Your task to perform on an android device: open device folders in google photos Image 0: 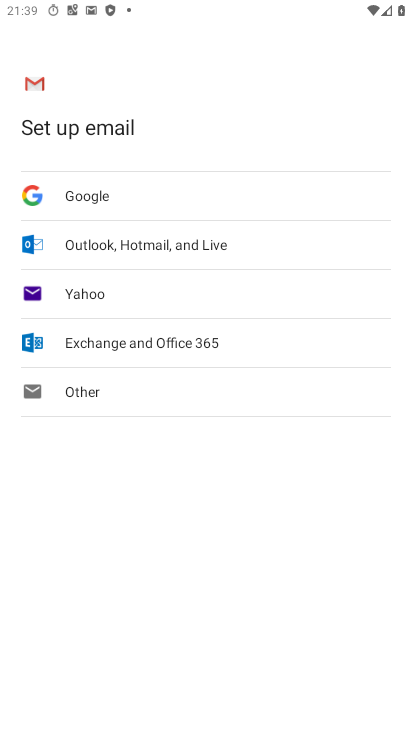
Step 0: press home button
Your task to perform on an android device: open device folders in google photos Image 1: 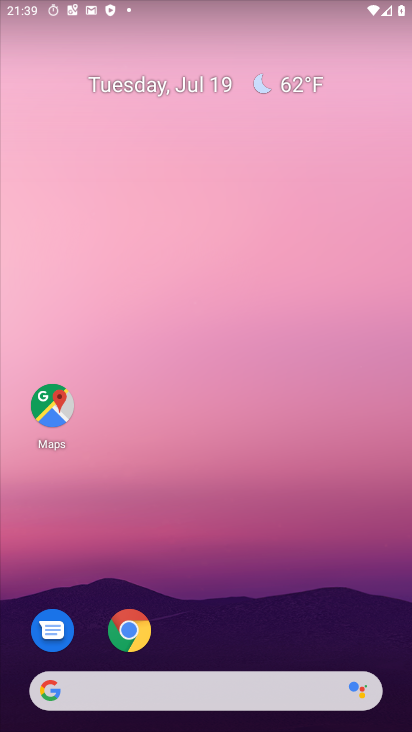
Step 1: drag from (28, 675) to (225, 156)
Your task to perform on an android device: open device folders in google photos Image 2: 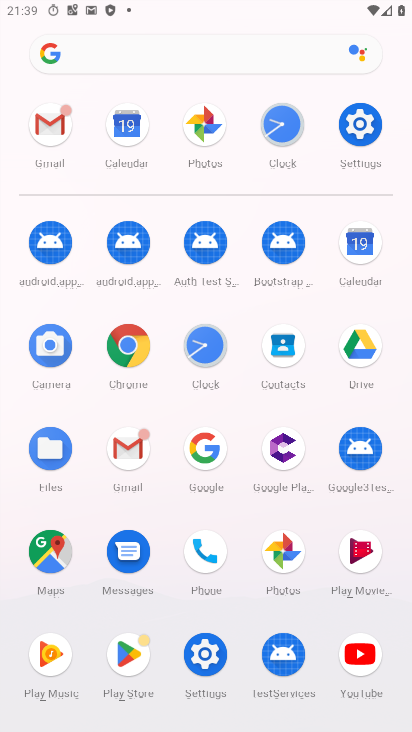
Step 2: click (274, 553)
Your task to perform on an android device: open device folders in google photos Image 3: 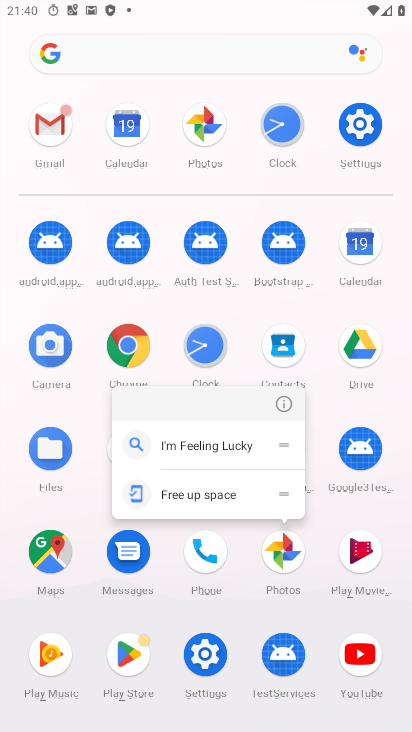
Step 3: click (208, 137)
Your task to perform on an android device: open device folders in google photos Image 4: 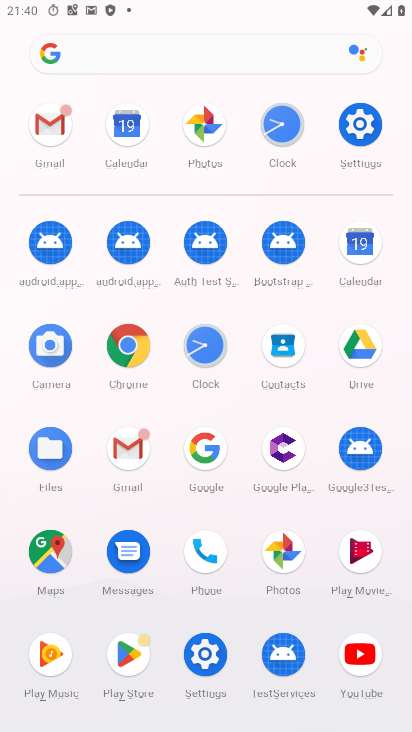
Step 4: click (207, 130)
Your task to perform on an android device: open device folders in google photos Image 5: 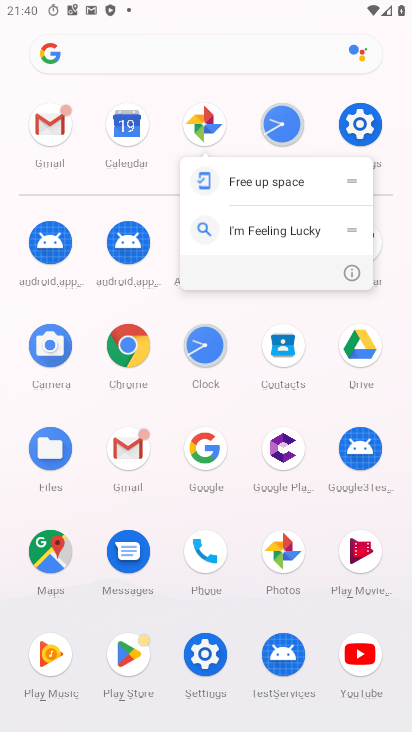
Step 5: click (207, 130)
Your task to perform on an android device: open device folders in google photos Image 6: 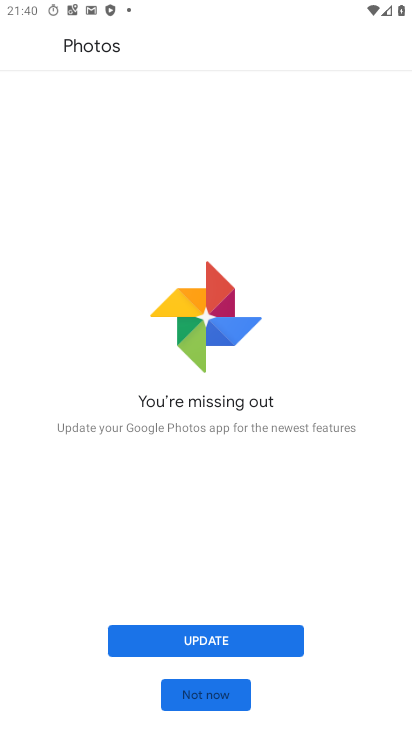
Step 6: click (213, 637)
Your task to perform on an android device: open device folders in google photos Image 7: 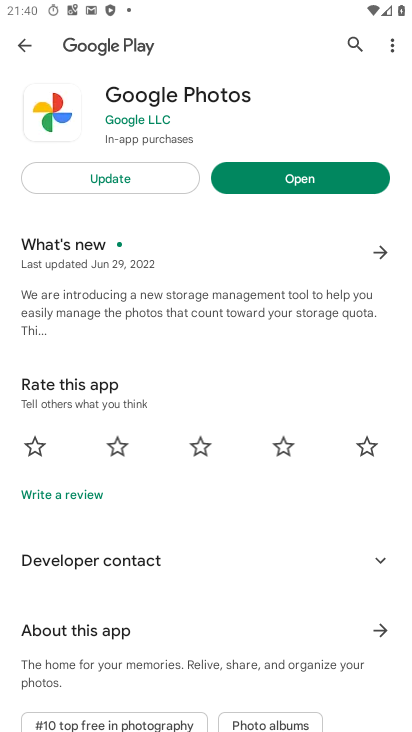
Step 7: click (282, 176)
Your task to perform on an android device: open device folders in google photos Image 8: 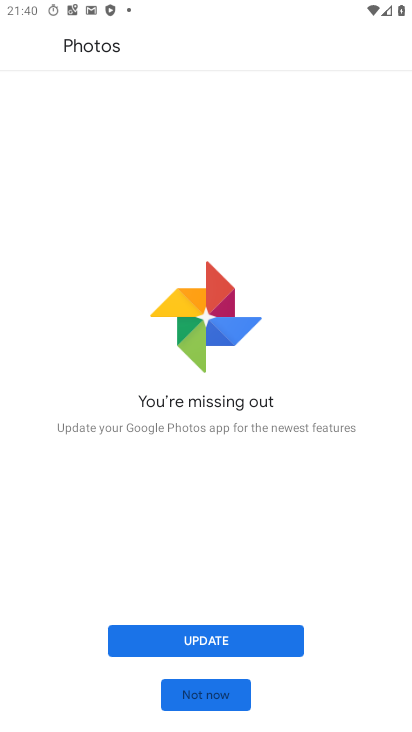
Step 8: click (351, 400)
Your task to perform on an android device: open device folders in google photos Image 9: 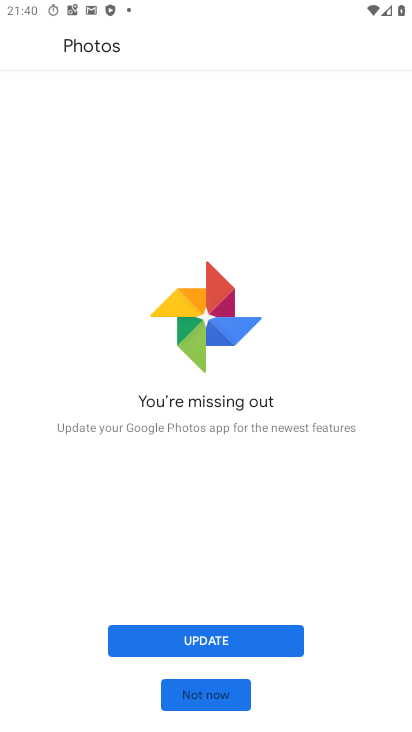
Step 9: task complete